Your task to perform on an android device: add a label to a message in the gmail app Image 0: 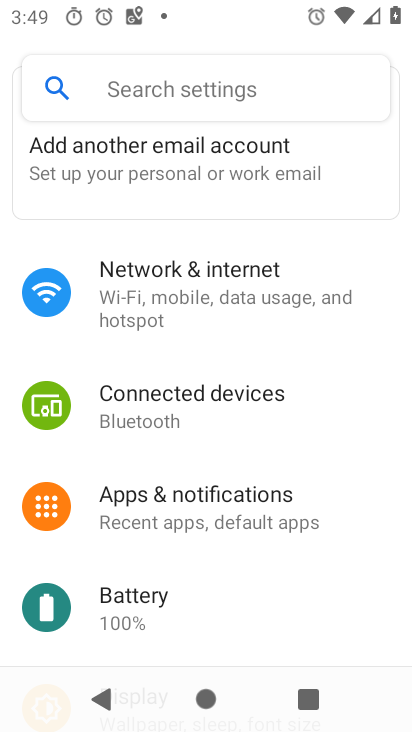
Step 0: press home button
Your task to perform on an android device: add a label to a message in the gmail app Image 1: 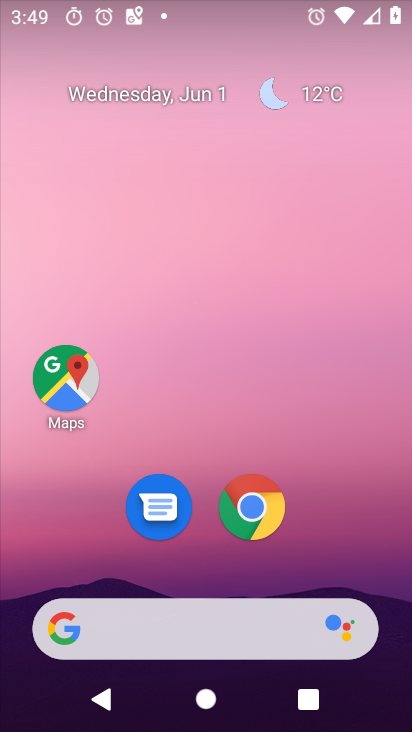
Step 1: drag from (340, 530) to (349, 4)
Your task to perform on an android device: add a label to a message in the gmail app Image 2: 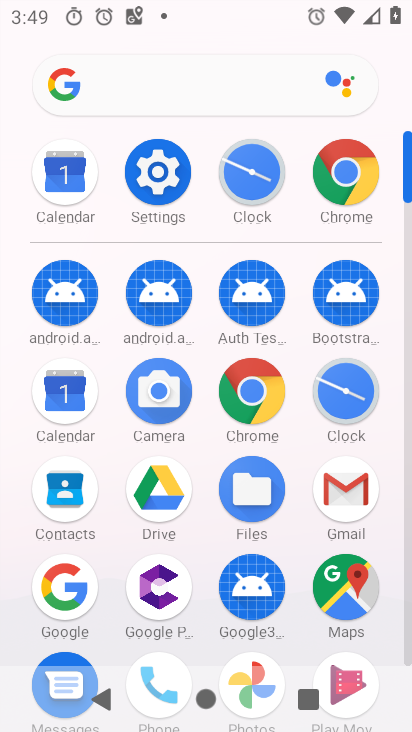
Step 2: click (339, 513)
Your task to perform on an android device: add a label to a message in the gmail app Image 3: 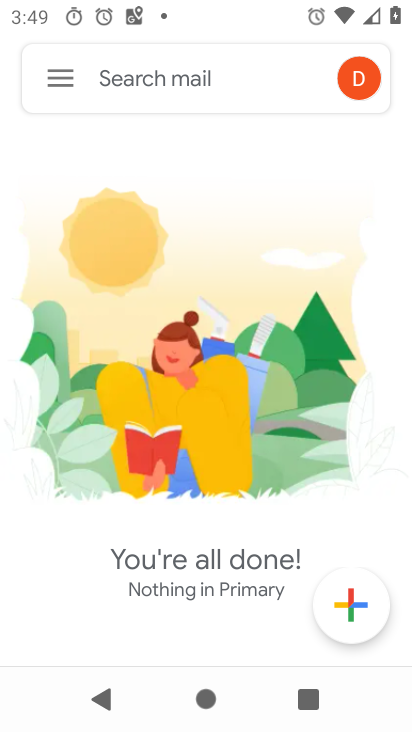
Step 3: click (66, 71)
Your task to perform on an android device: add a label to a message in the gmail app Image 4: 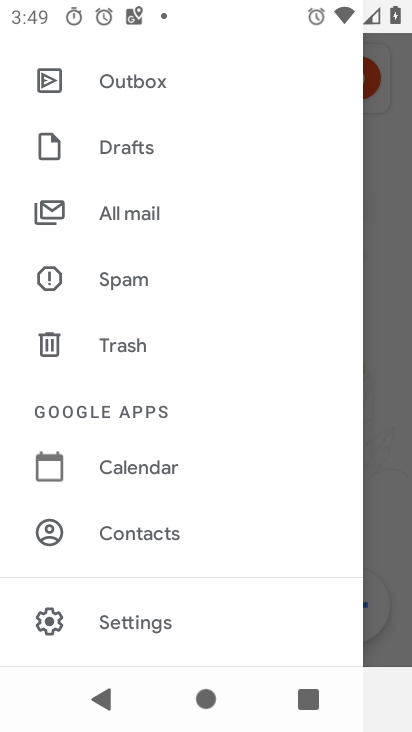
Step 4: click (138, 213)
Your task to perform on an android device: add a label to a message in the gmail app Image 5: 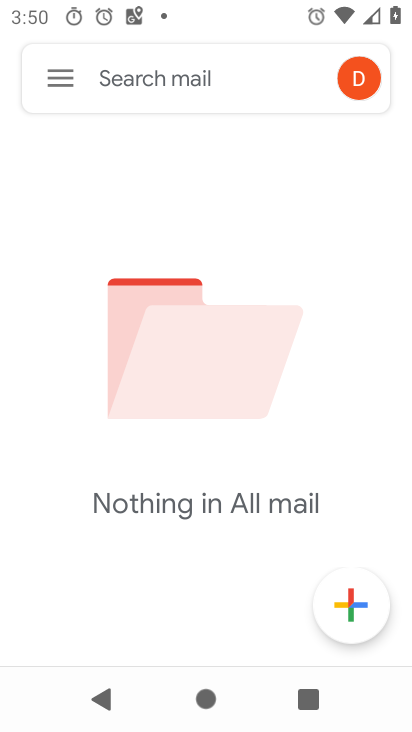
Step 5: task complete